Your task to perform on an android device: Open Google Chrome and click the shortcut for Amazon.com Image 0: 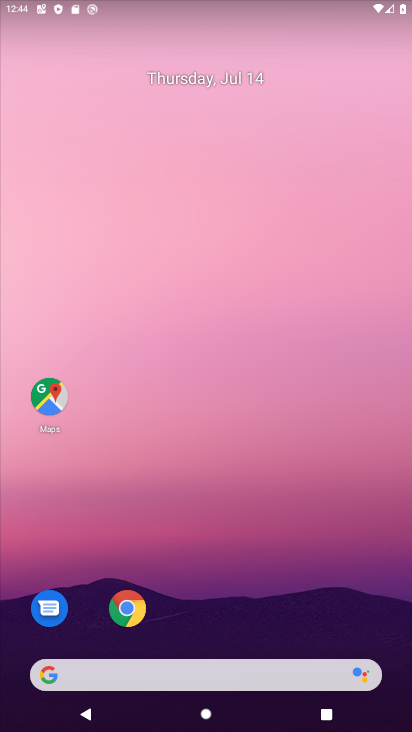
Step 0: drag from (199, 517) to (215, 116)
Your task to perform on an android device: Open Google Chrome and click the shortcut for Amazon.com Image 1: 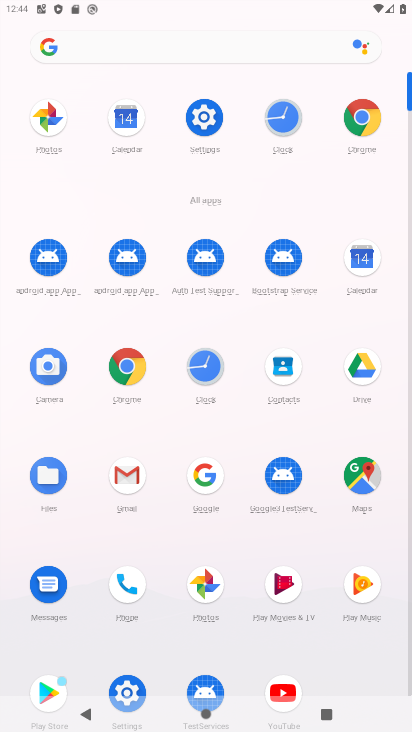
Step 1: click (130, 366)
Your task to perform on an android device: Open Google Chrome and click the shortcut for Amazon.com Image 2: 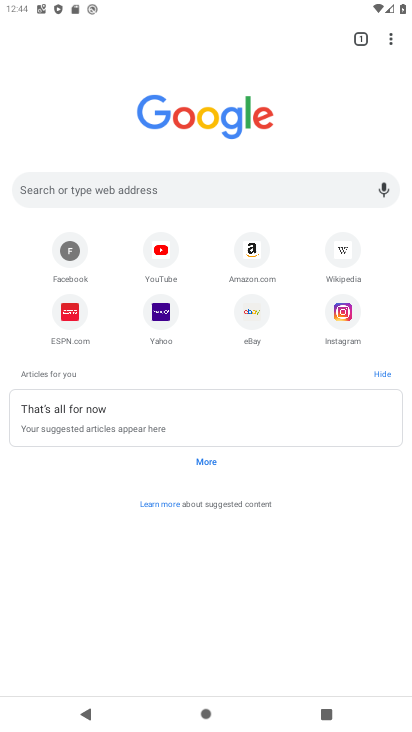
Step 2: click (245, 257)
Your task to perform on an android device: Open Google Chrome and click the shortcut for Amazon.com Image 3: 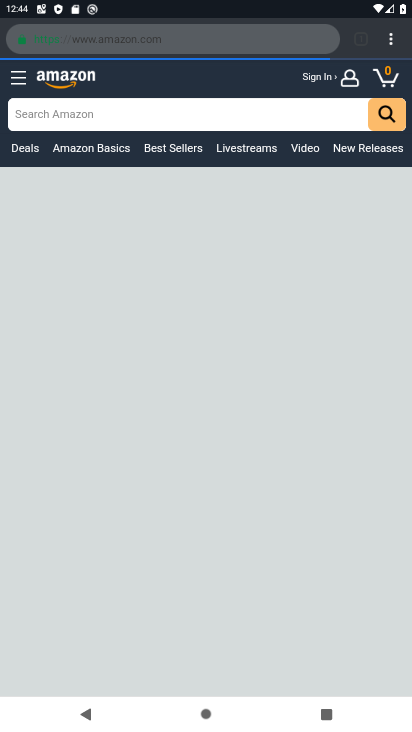
Step 3: task complete